Your task to perform on an android device: turn on airplane mode Image 0: 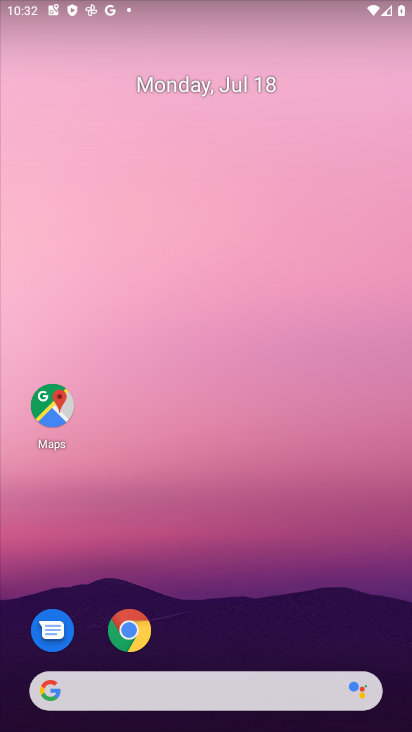
Step 0: drag from (246, 11) to (294, 516)
Your task to perform on an android device: turn on airplane mode Image 1: 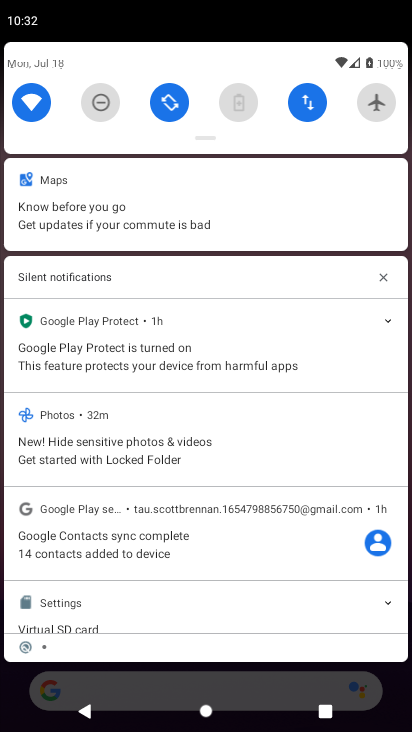
Step 1: click (378, 107)
Your task to perform on an android device: turn on airplane mode Image 2: 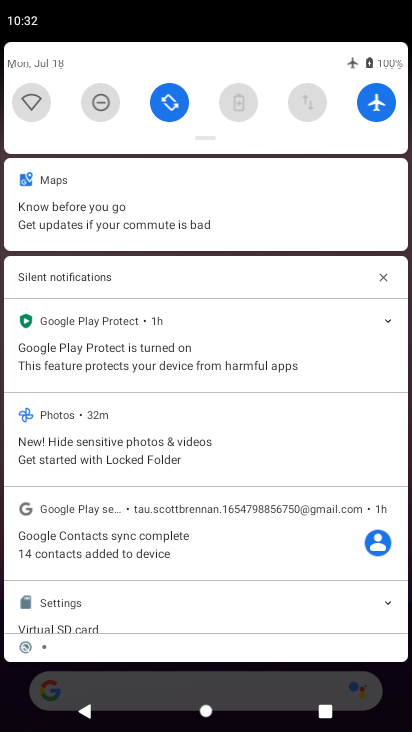
Step 2: task complete